Your task to perform on an android device: Check the news Image 0: 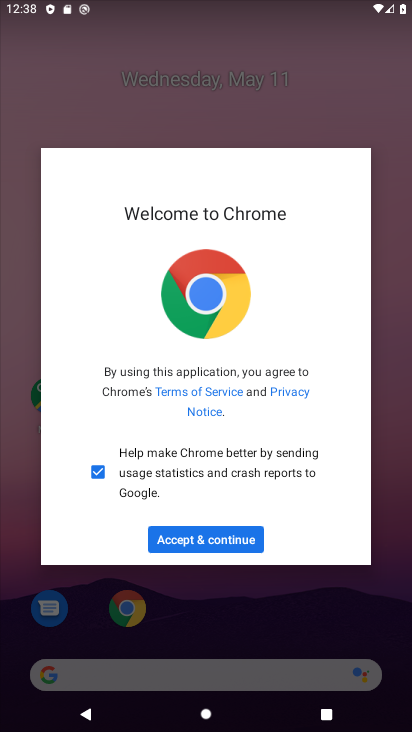
Step 0: press home button
Your task to perform on an android device: Check the news Image 1: 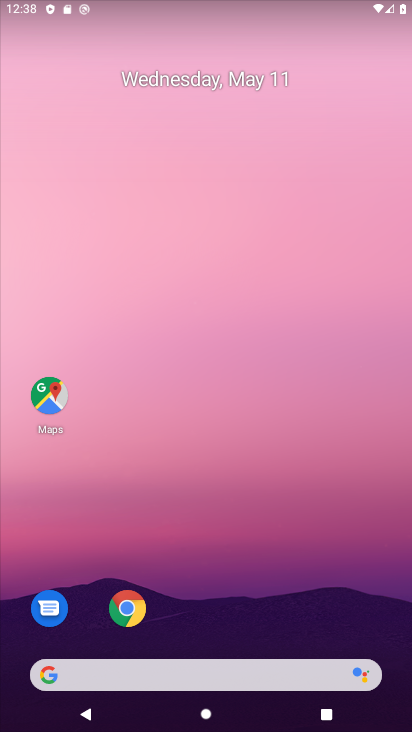
Step 1: click (140, 612)
Your task to perform on an android device: Check the news Image 2: 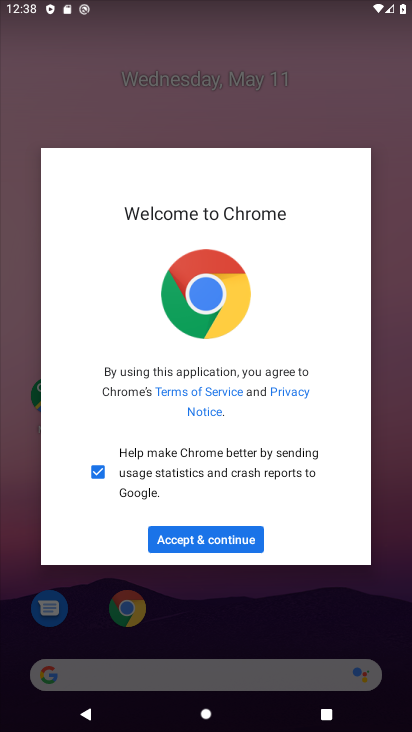
Step 2: click (201, 543)
Your task to perform on an android device: Check the news Image 3: 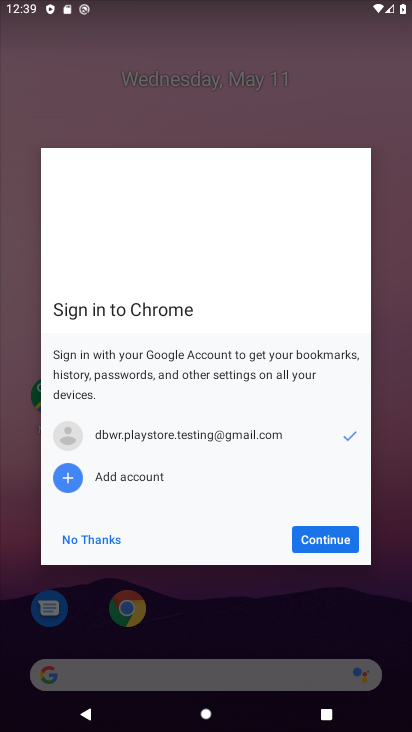
Step 3: click (344, 542)
Your task to perform on an android device: Check the news Image 4: 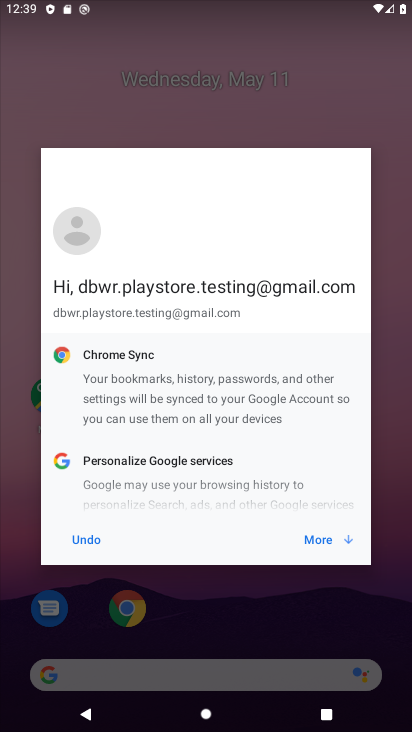
Step 4: click (327, 534)
Your task to perform on an android device: Check the news Image 5: 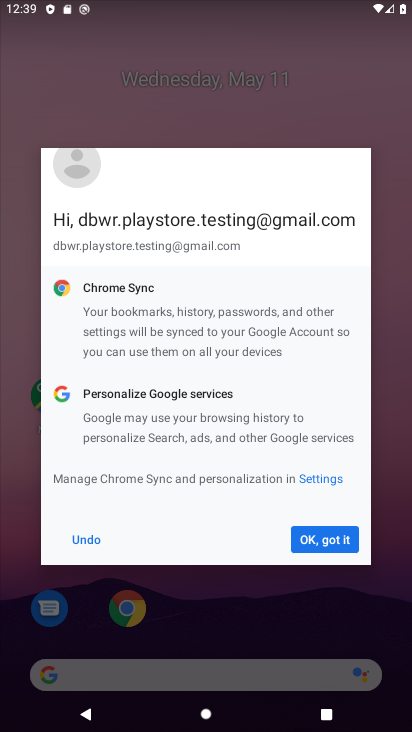
Step 5: click (326, 546)
Your task to perform on an android device: Check the news Image 6: 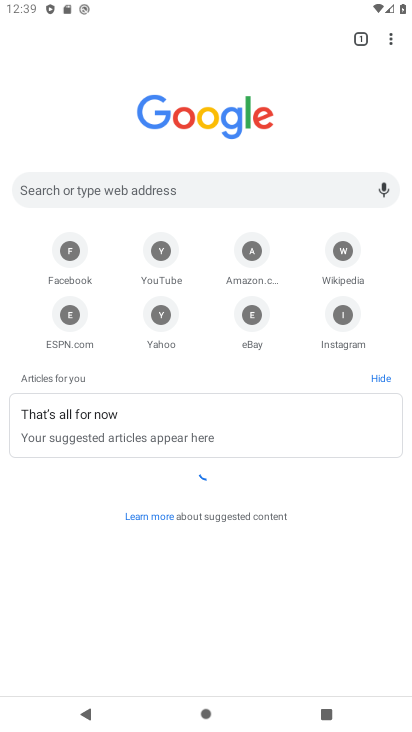
Step 6: click (212, 36)
Your task to perform on an android device: Check the news Image 7: 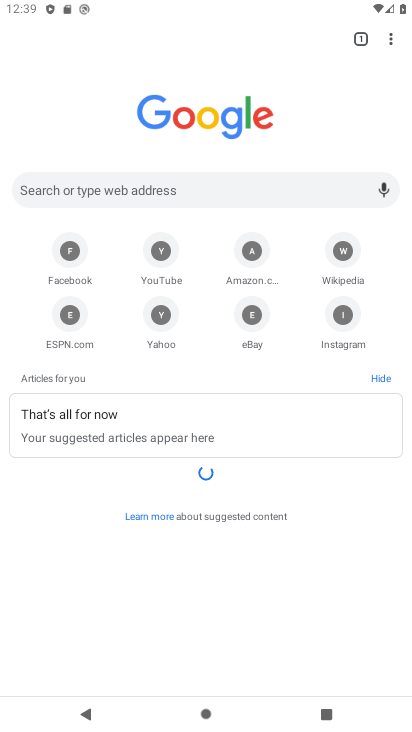
Step 7: click (190, 187)
Your task to perform on an android device: Check the news Image 8: 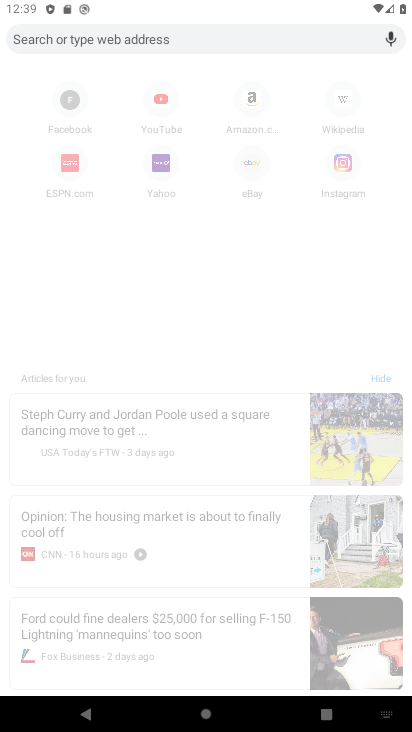
Step 8: type "news"
Your task to perform on an android device: Check the news Image 9: 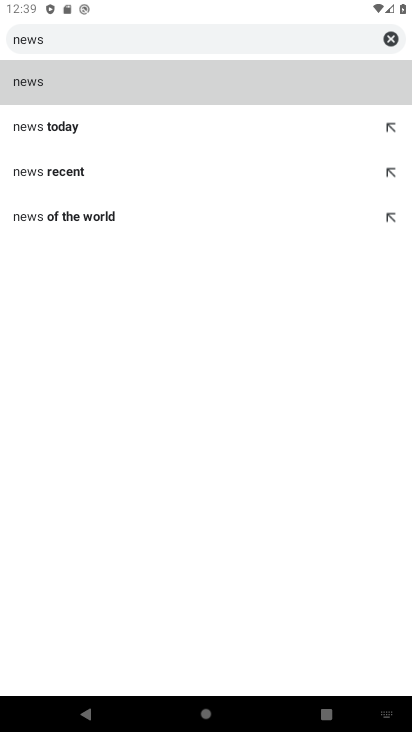
Step 9: click (107, 84)
Your task to perform on an android device: Check the news Image 10: 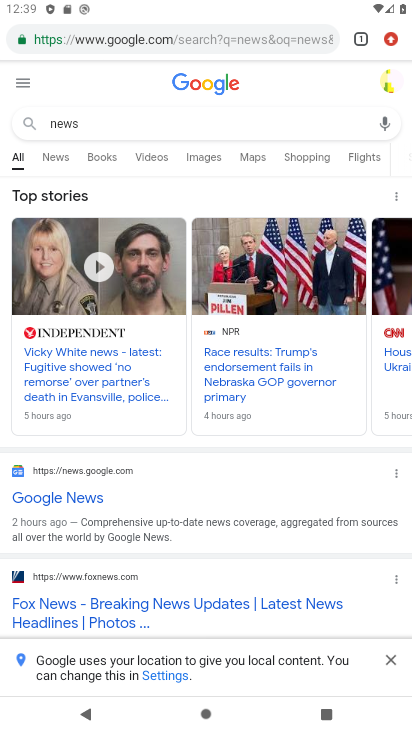
Step 10: task complete